Your task to perform on an android device: toggle notification dots Image 0: 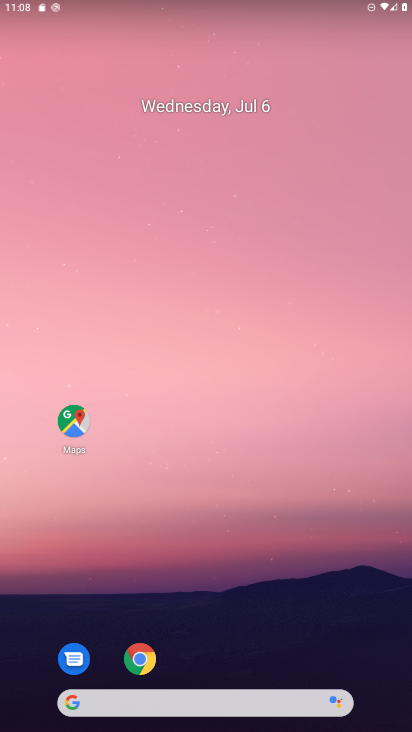
Step 0: drag from (187, 667) to (226, 123)
Your task to perform on an android device: toggle notification dots Image 1: 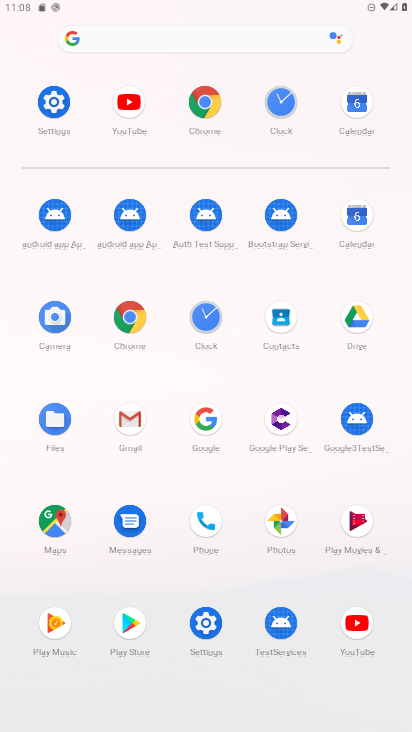
Step 1: click (55, 108)
Your task to perform on an android device: toggle notification dots Image 2: 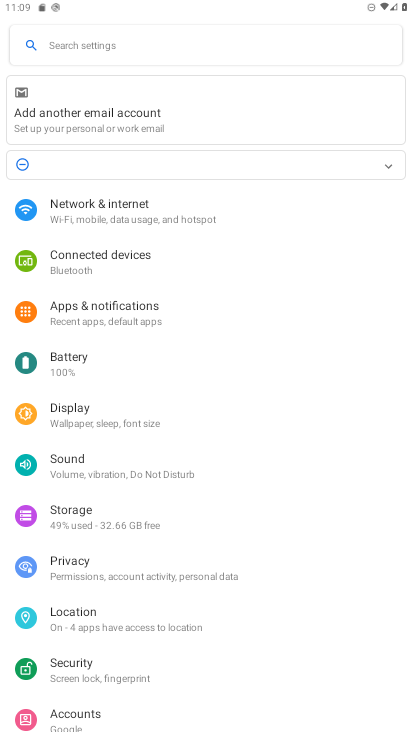
Step 2: click (93, 313)
Your task to perform on an android device: toggle notification dots Image 3: 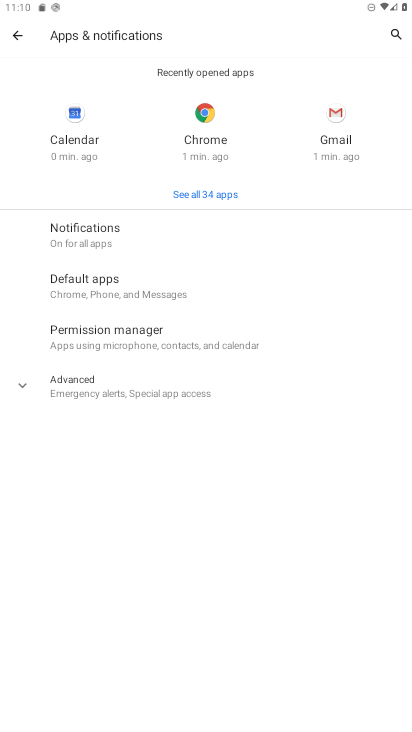
Step 3: click (137, 224)
Your task to perform on an android device: toggle notification dots Image 4: 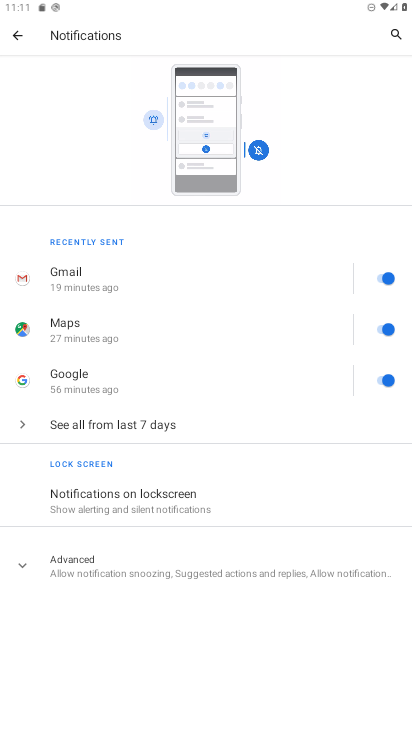
Step 4: click (134, 564)
Your task to perform on an android device: toggle notification dots Image 5: 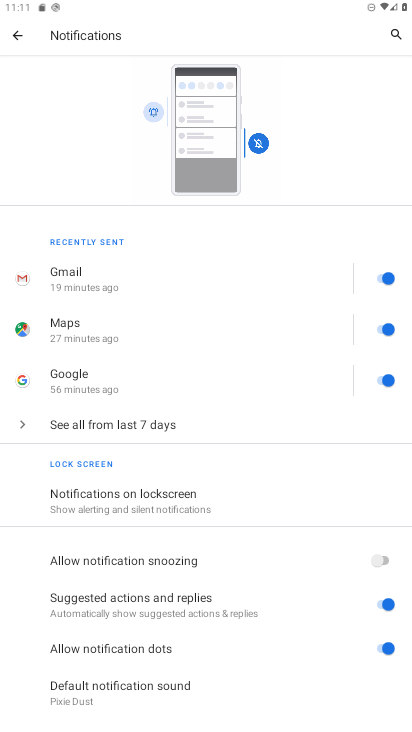
Step 5: click (389, 642)
Your task to perform on an android device: toggle notification dots Image 6: 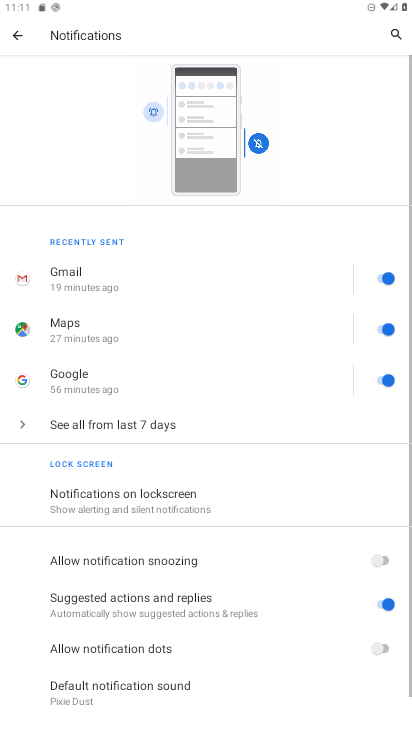
Step 6: task complete